Your task to perform on an android device: Show me popular games on the Play Store Image 0: 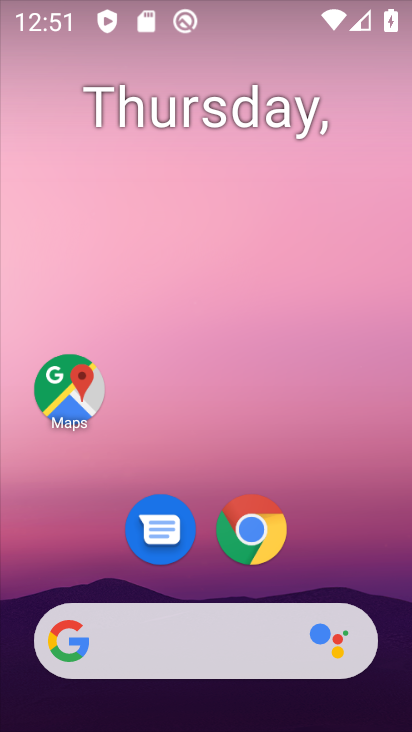
Step 0: drag from (212, 724) to (201, 35)
Your task to perform on an android device: Show me popular games on the Play Store Image 1: 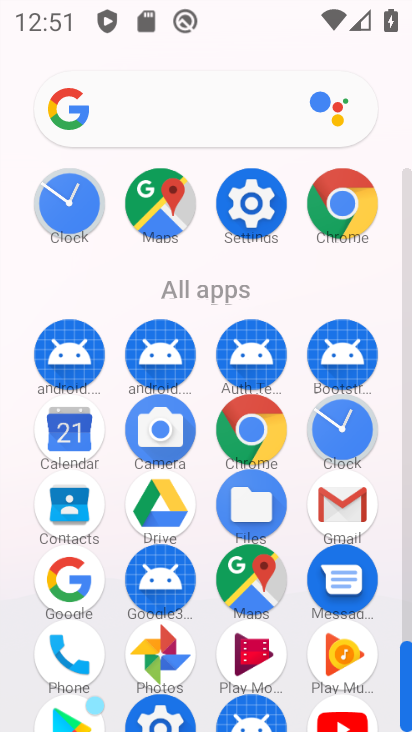
Step 1: drag from (206, 663) to (194, 268)
Your task to perform on an android device: Show me popular games on the Play Store Image 2: 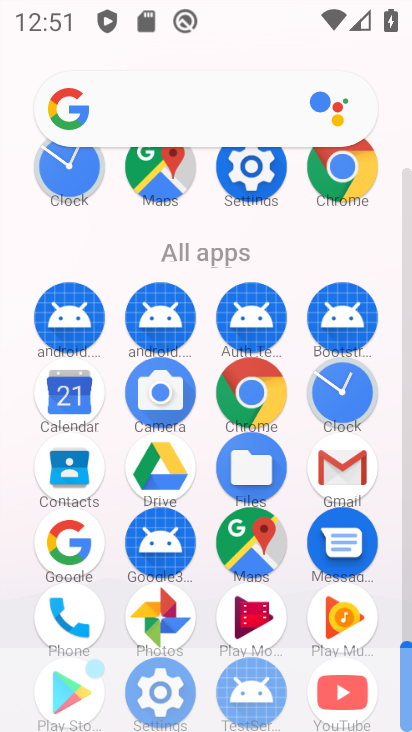
Step 2: click (60, 691)
Your task to perform on an android device: Show me popular games on the Play Store Image 3: 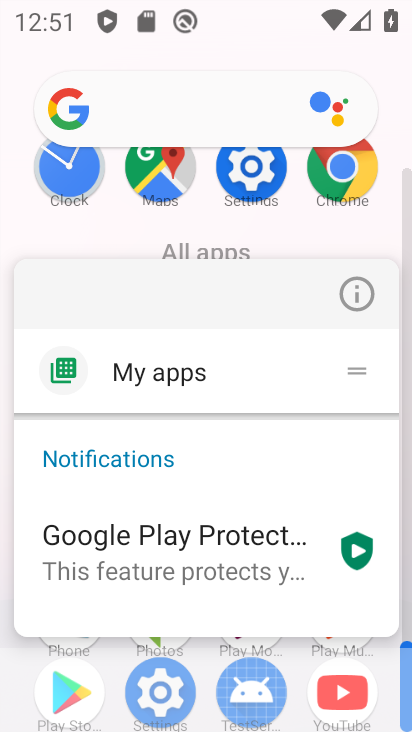
Step 3: click (59, 687)
Your task to perform on an android device: Show me popular games on the Play Store Image 4: 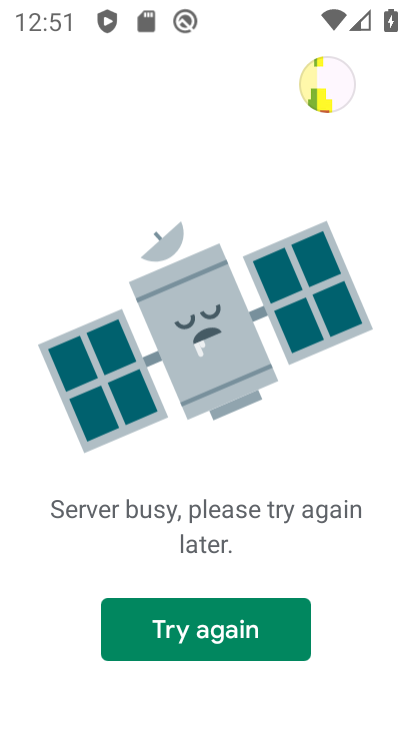
Step 4: click (190, 628)
Your task to perform on an android device: Show me popular games on the Play Store Image 5: 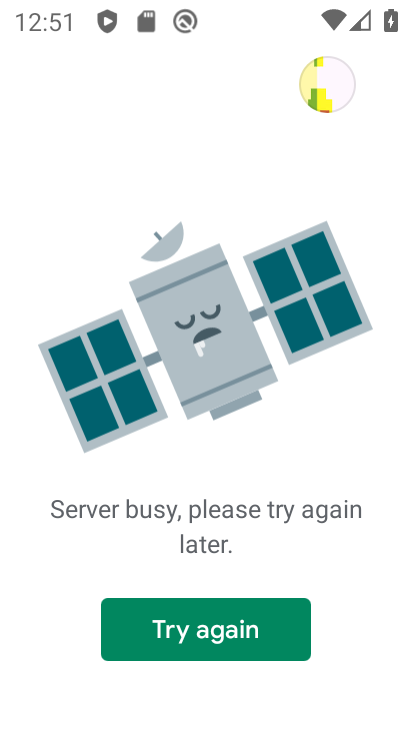
Step 5: click (190, 628)
Your task to perform on an android device: Show me popular games on the Play Store Image 6: 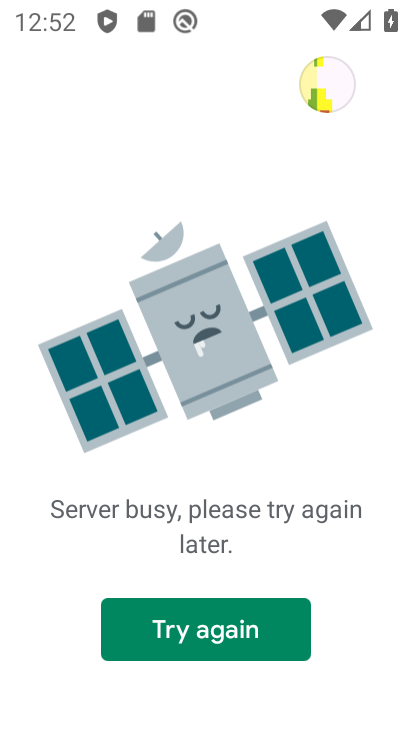
Step 6: task complete